Your task to perform on an android device: Open Yahoo.com Image 0: 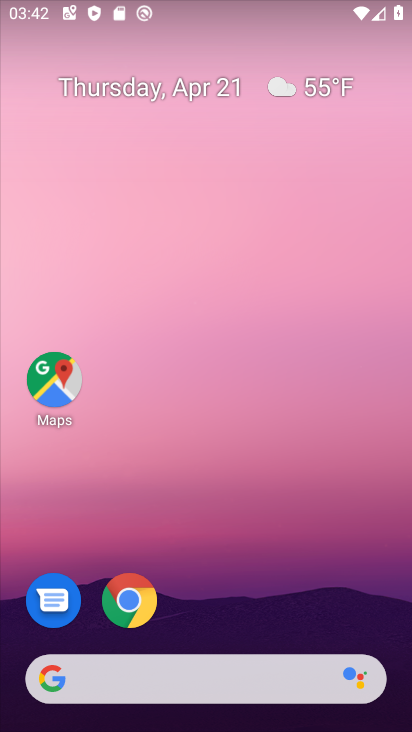
Step 0: click (138, 599)
Your task to perform on an android device: Open Yahoo.com Image 1: 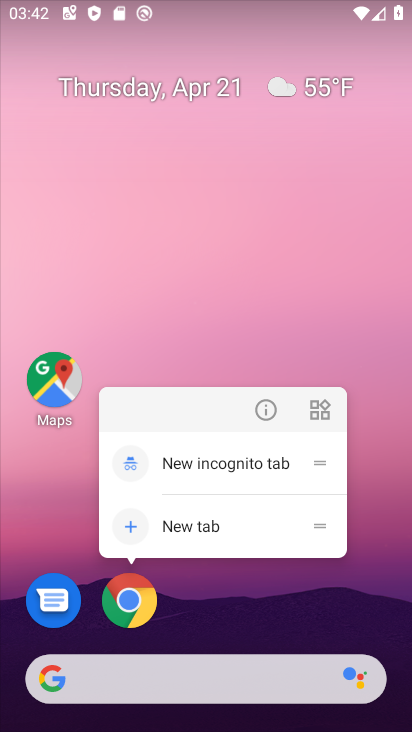
Step 1: click (138, 599)
Your task to perform on an android device: Open Yahoo.com Image 2: 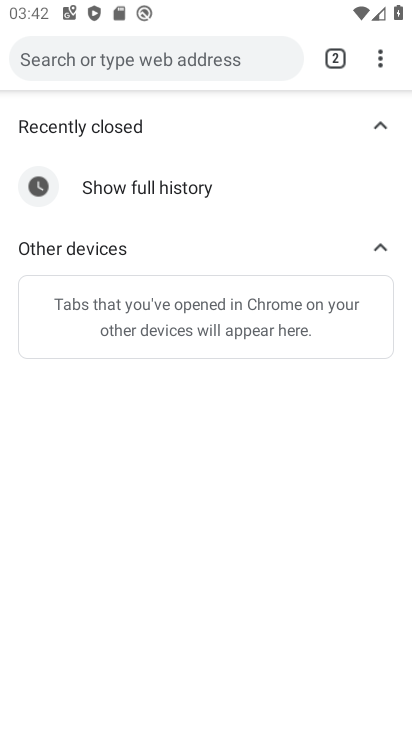
Step 2: click (187, 63)
Your task to perform on an android device: Open Yahoo.com Image 3: 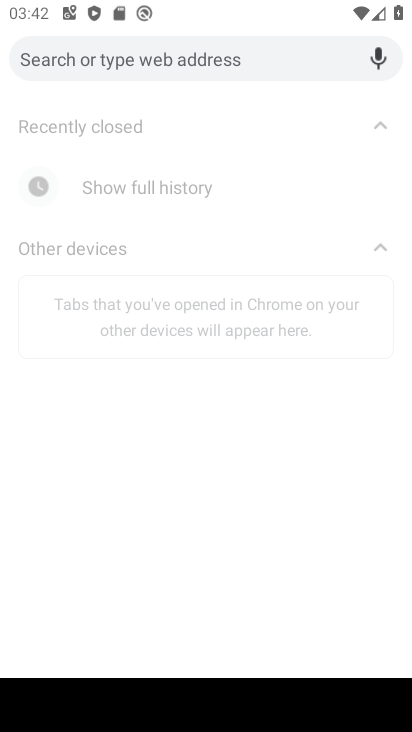
Step 3: type "yahoo.com"
Your task to perform on an android device: Open Yahoo.com Image 4: 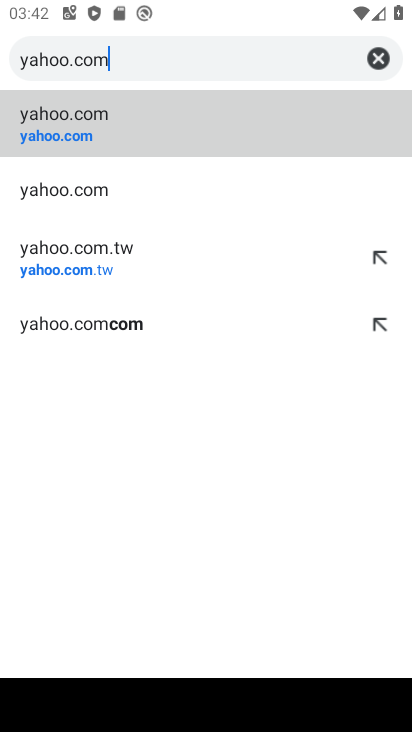
Step 4: click (37, 129)
Your task to perform on an android device: Open Yahoo.com Image 5: 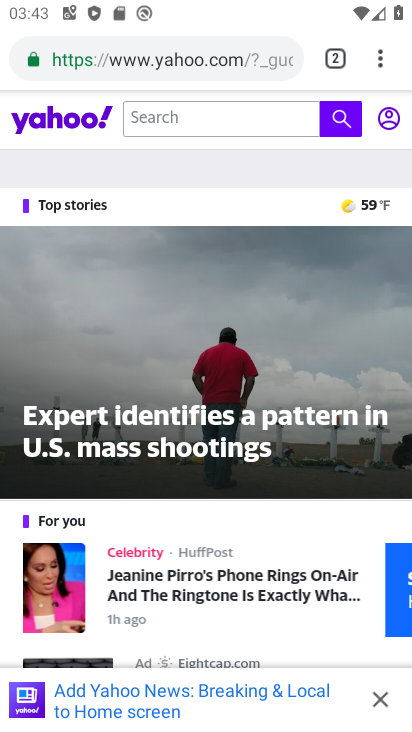
Step 5: task complete